Your task to perform on an android device: Show me popular videos on Youtube Image 0: 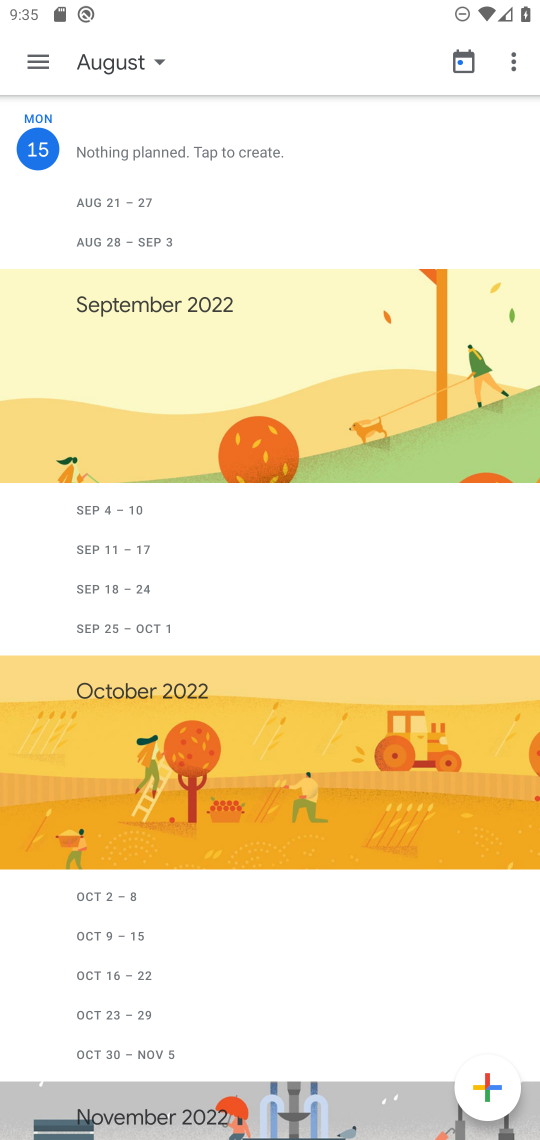
Step 0: press home button
Your task to perform on an android device: Show me popular videos on Youtube Image 1: 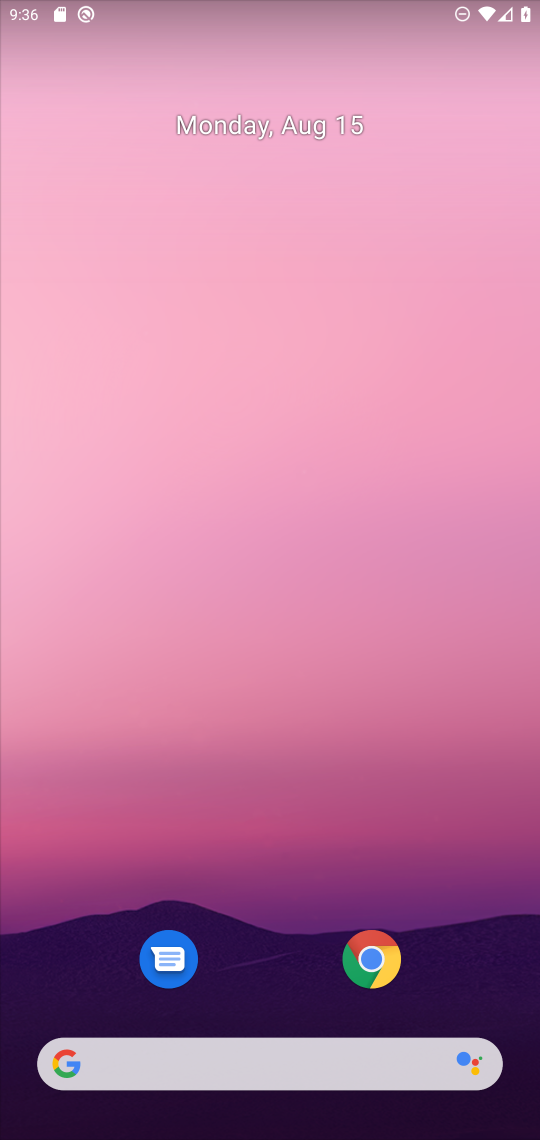
Step 1: drag from (269, 1000) to (270, 33)
Your task to perform on an android device: Show me popular videos on Youtube Image 2: 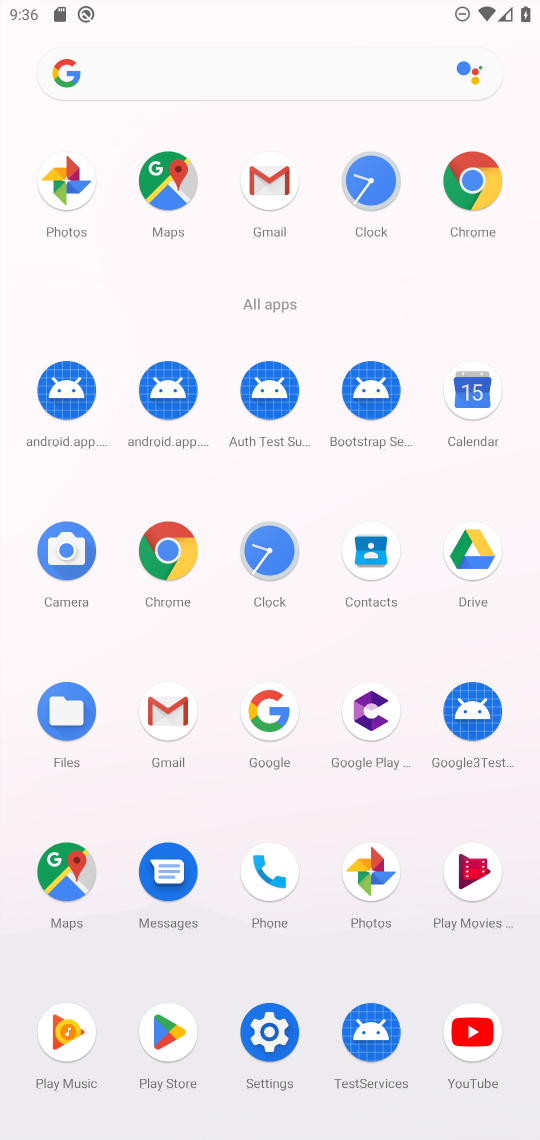
Step 2: click (466, 1052)
Your task to perform on an android device: Show me popular videos on Youtube Image 3: 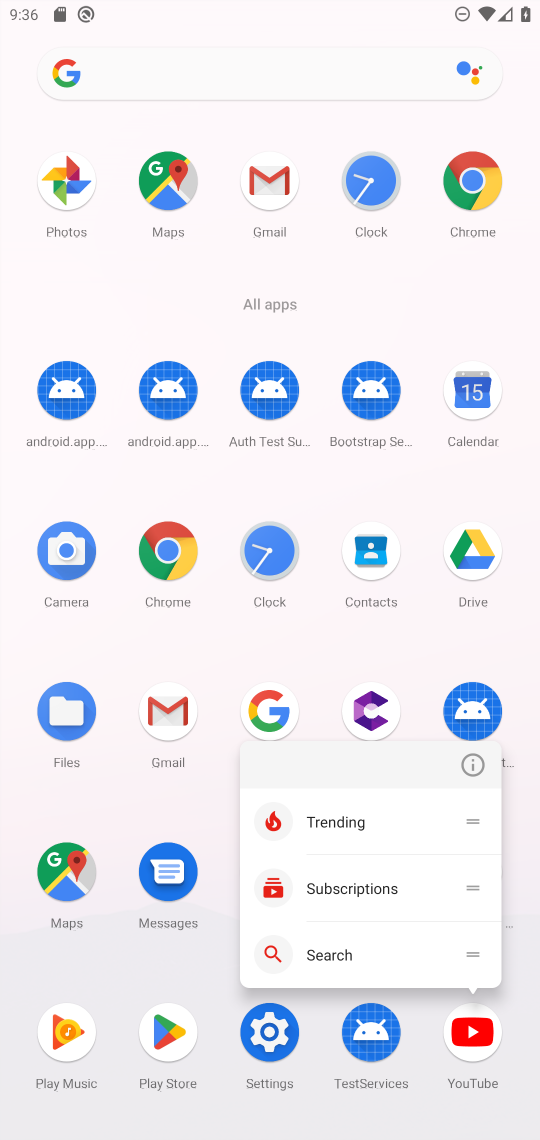
Step 3: click (466, 1038)
Your task to perform on an android device: Show me popular videos on Youtube Image 4: 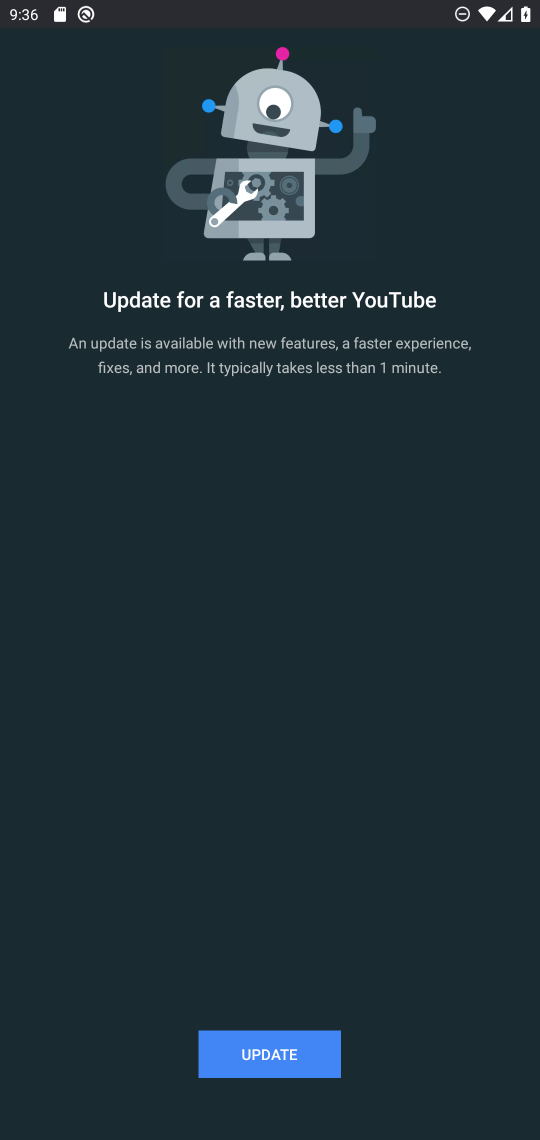
Step 4: click (213, 1050)
Your task to perform on an android device: Show me popular videos on Youtube Image 5: 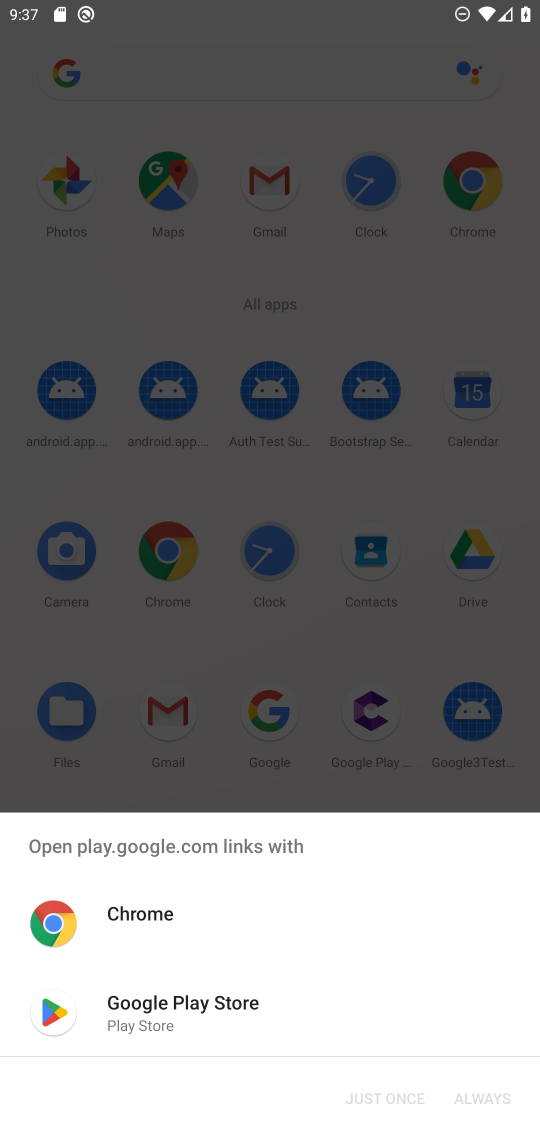
Step 5: click (218, 1008)
Your task to perform on an android device: Show me popular videos on Youtube Image 6: 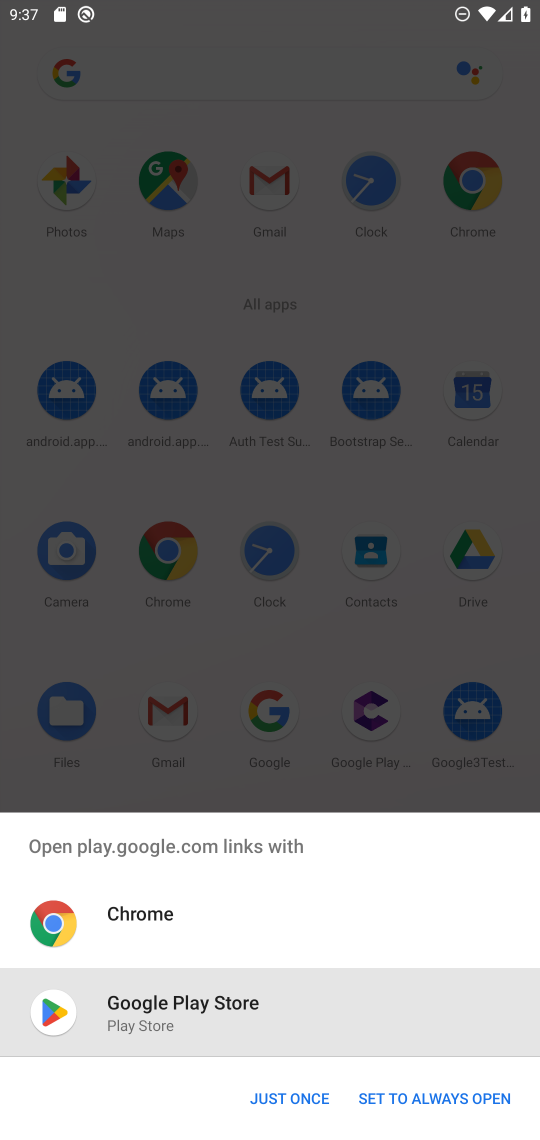
Step 6: click (296, 1088)
Your task to perform on an android device: Show me popular videos on Youtube Image 7: 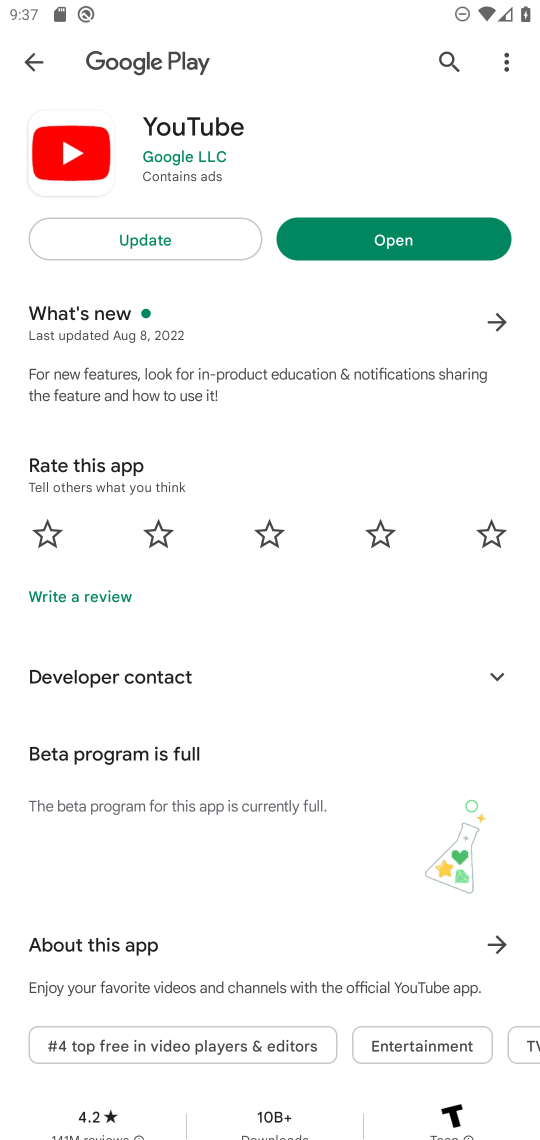
Step 7: click (165, 234)
Your task to perform on an android device: Show me popular videos on Youtube Image 8: 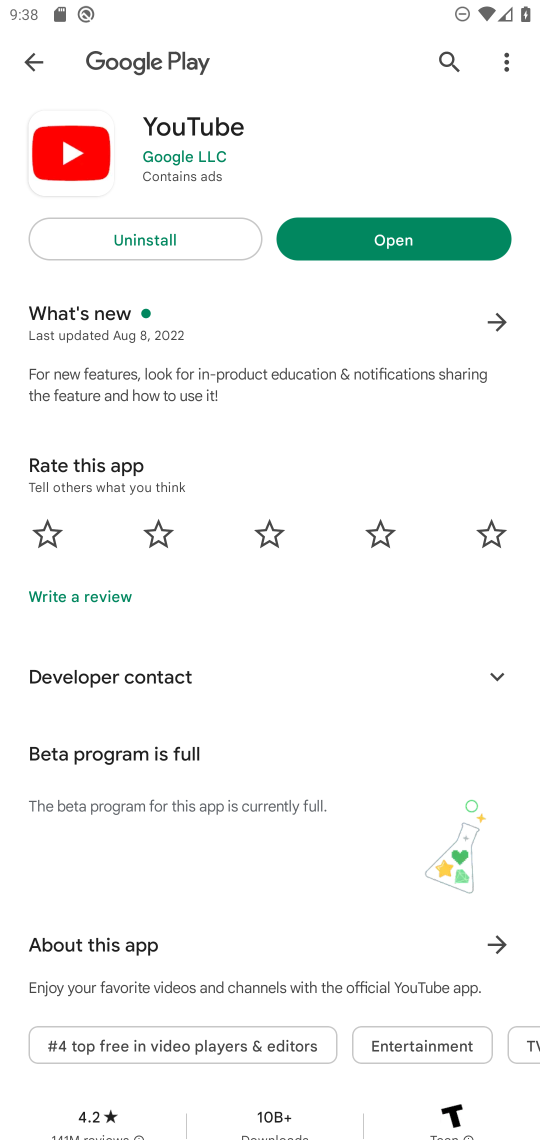
Step 8: click (345, 226)
Your task to perform on an android device: Show me popular videos on Youtube Image 9: 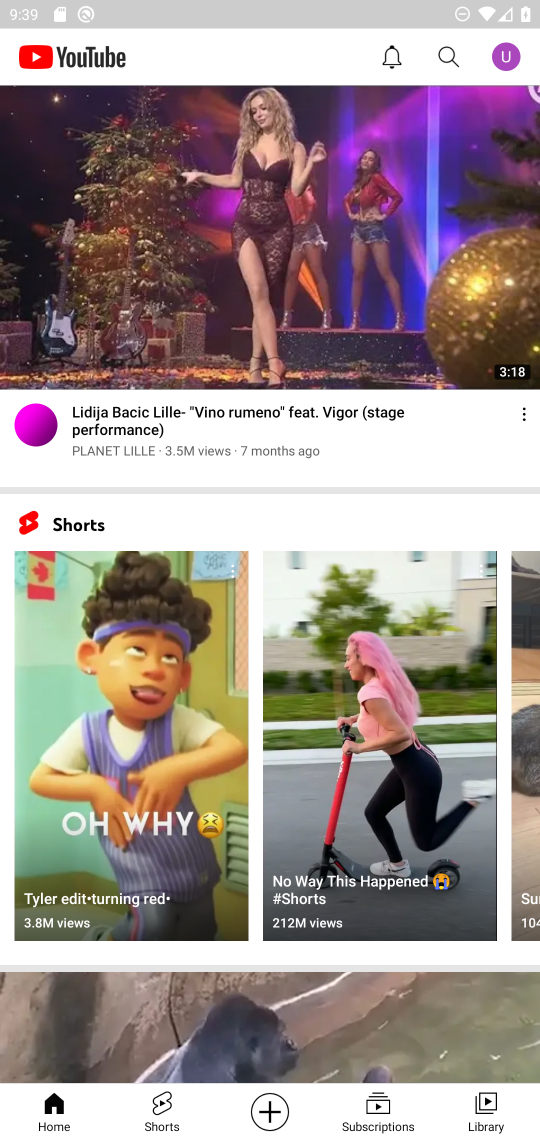
Step 9: drag from (119, 179) to (112, 558)
Your task to perform on an android device: Show me popular videos on Youtube Image 10: 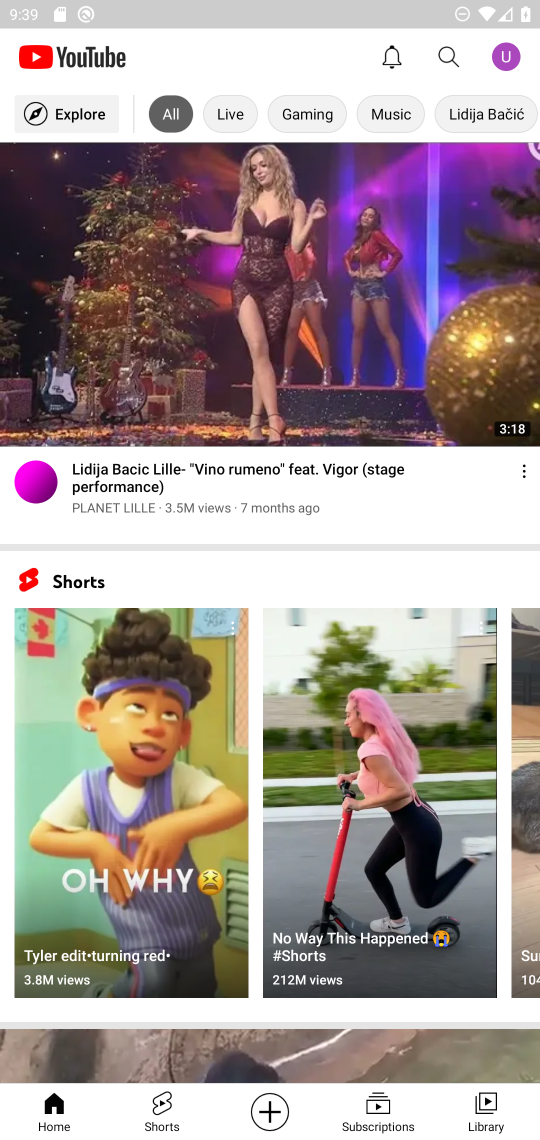
Step 10: click (40, 121)
Your task to perform on an android device: Show me popular videos on Youtube Image 11: 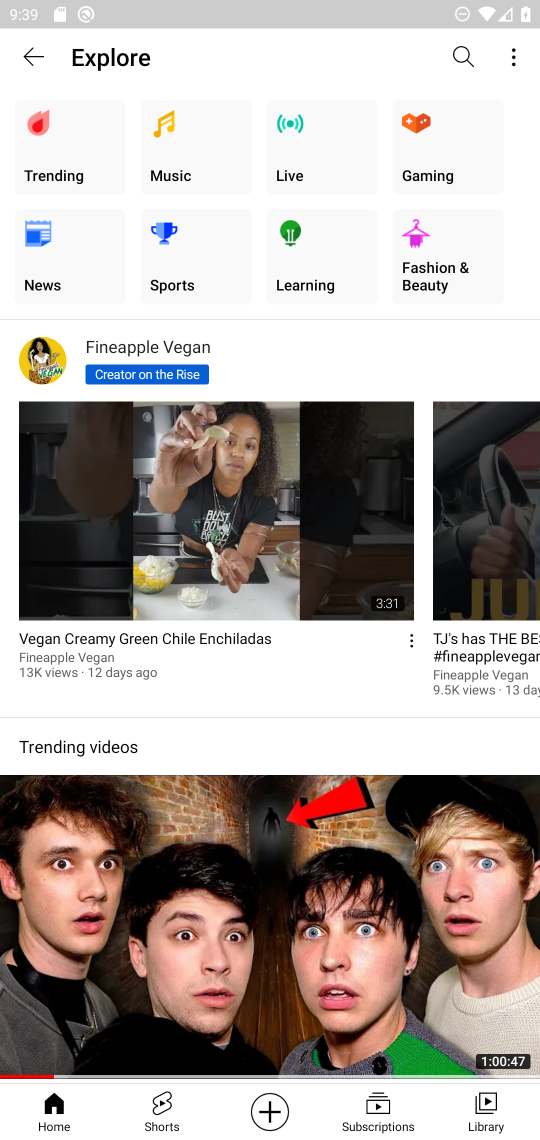
Step 11: click (50, 158)
Your task to perform on an android device: Show me popular videos on Youtube Image 12: 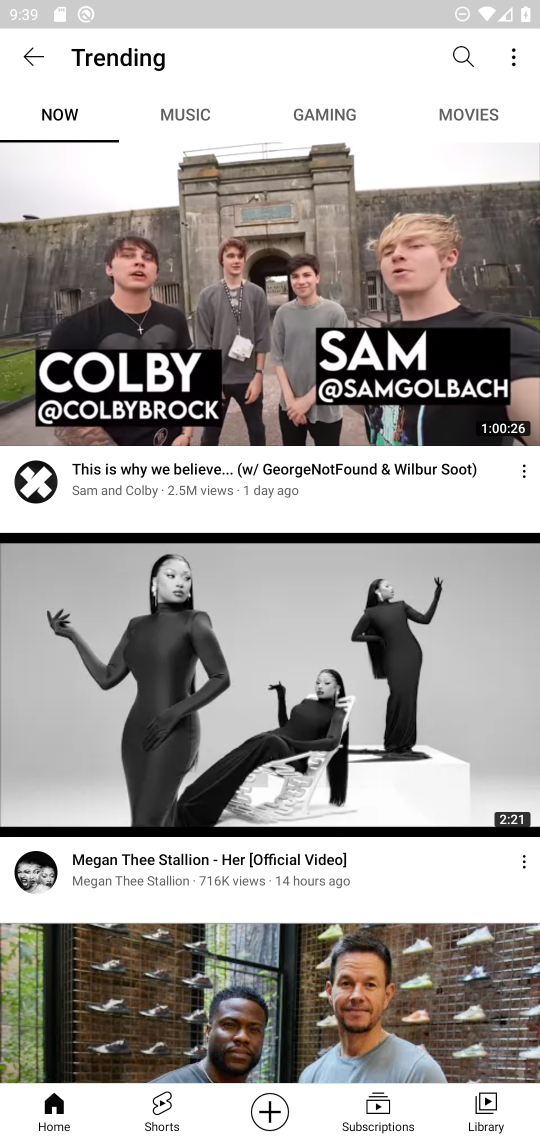
Step 12: task complete